Your task to perform on an android device: Open Android settings Image 0: 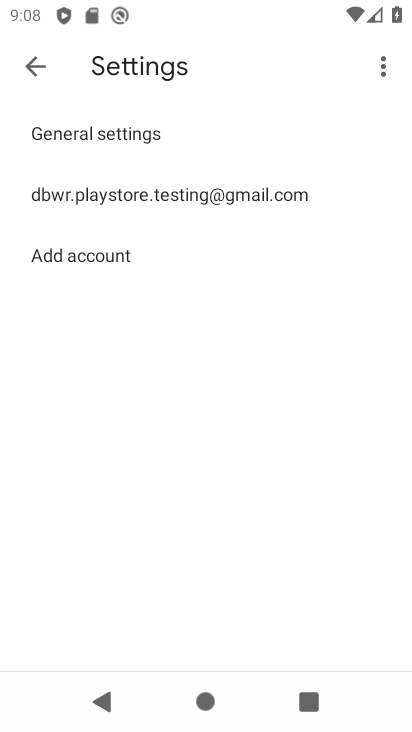
Step 0: press home button
Your task to perform on an android device: Open Android settings Image 1: 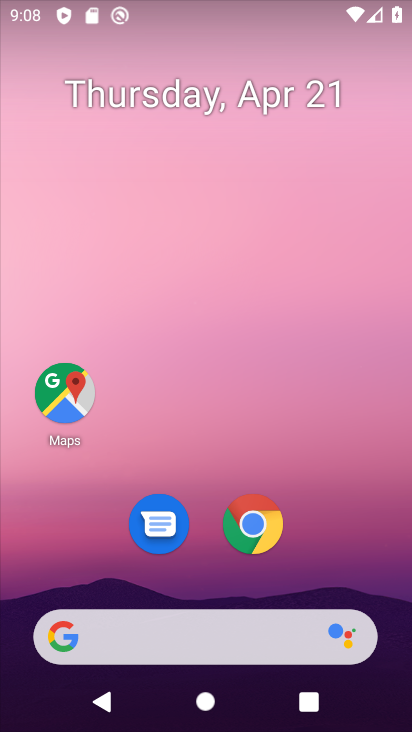
Step 1: drag from (343, 546) to (334, 134)
Your task to perform on an android device: Open Android settings Image 2: 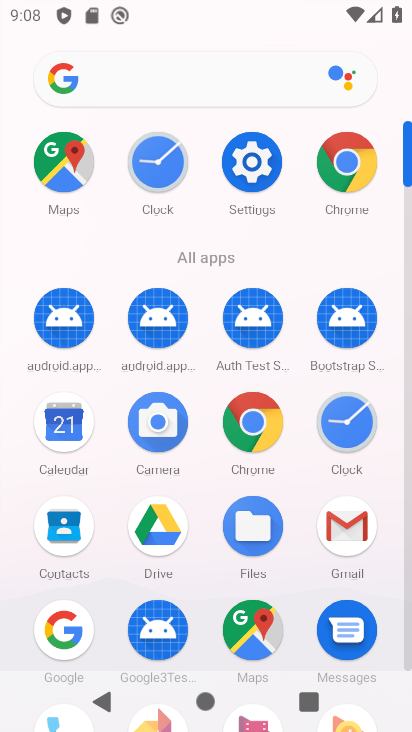
Step 2: click (261, 167)
Your task to perform on an android device: Open Android settings Image 3: 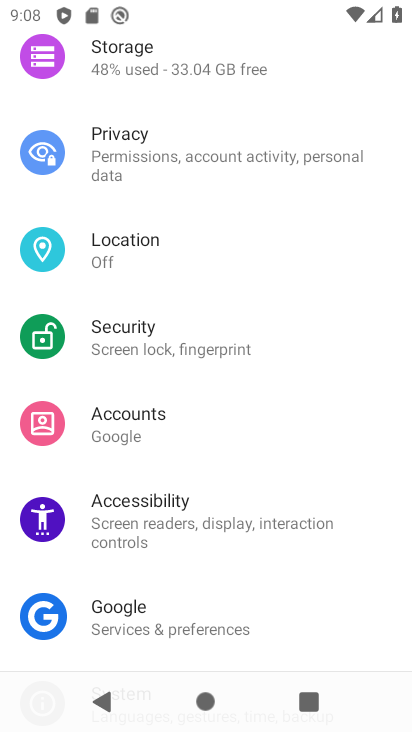
Step 3: drag from (261, 592) to (249, 227)
Your task to perform on an android device: Open Android settings Image 4: 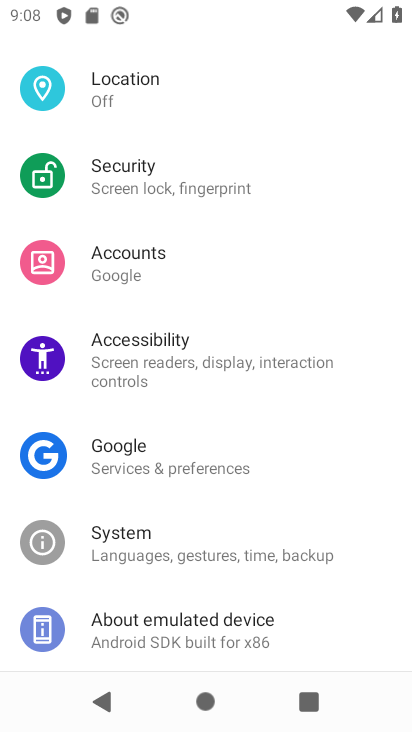
Step 4: drag from (233, 157) to (224, 583)
Your task to perform on an android device: Open Android settings Image 5: 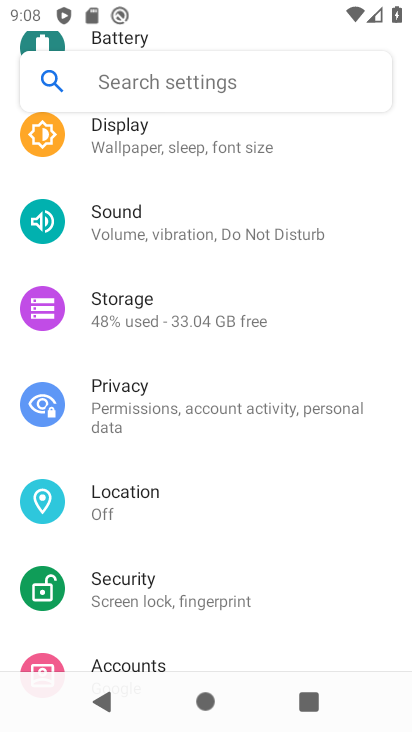
Step 5: drag from (248, 552) to (233, 159)
Your task to perform on an android device: Open Android settings Image 6: 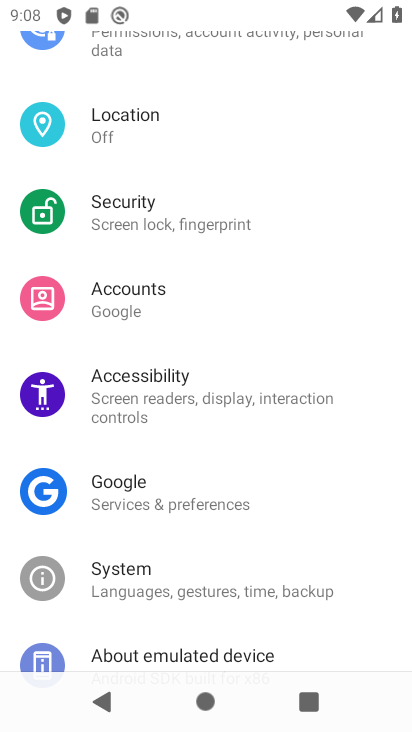
Step 6: drag from (228, 519) to (220, 269)
Your task to perform on an android device: Open Android settings Image 7: 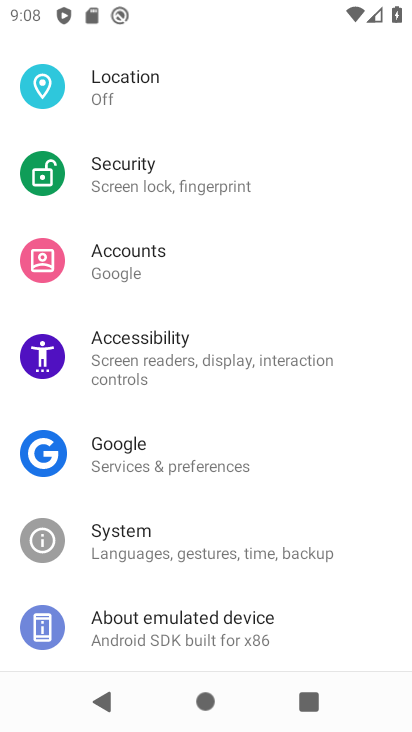
Step 7: click (207, 620)
Your task to perform on an android device: Open Android settings Image 8: 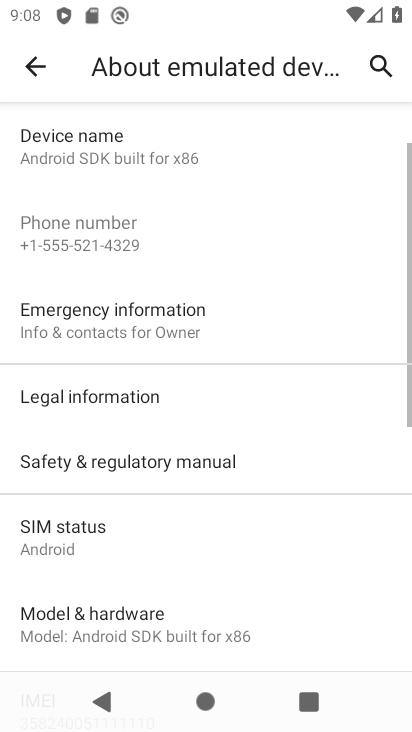
Step 8: task complete